Your task to perform on an android device: Open Google Chrome and click the shortcut for Amazon.com Image 0: 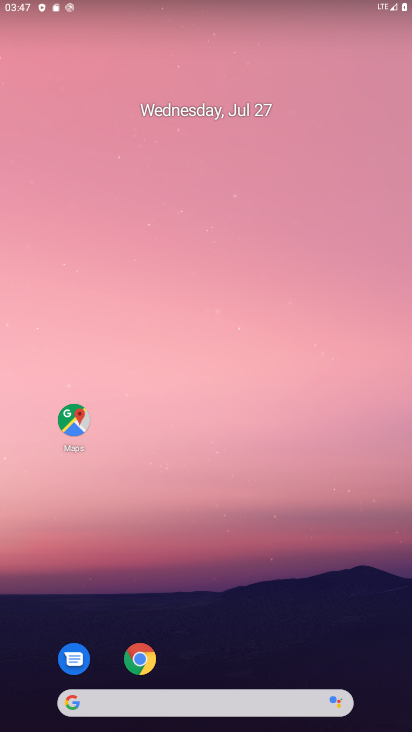
Step 0: click (145, 658)
Your task to perform on an android device: Open Google Chrome and click the shortcut for Amazon.com Image 1: 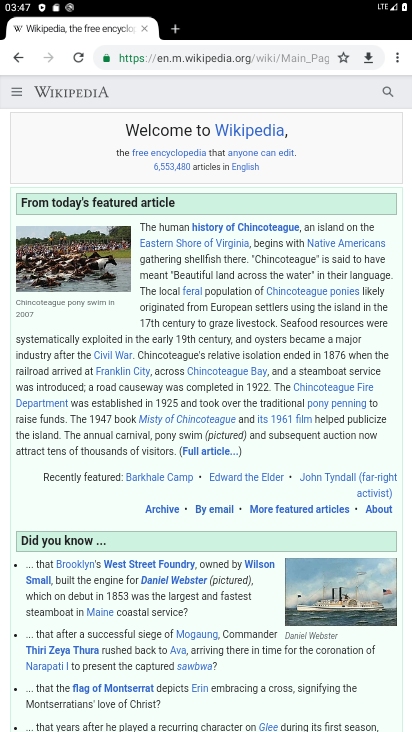
Step 1: click (176, 26)
Your task to perform on an android device: Open Google Chrome and click the shortcut for Amazon.com Image 2: 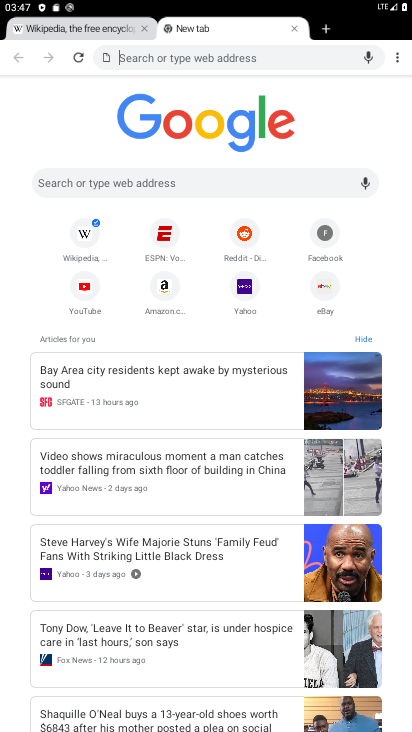
Step 2: click (159, 288)
Your task to perform on an android device: Open Google Chrome and click the shortcut for Amazon.com Image 3: 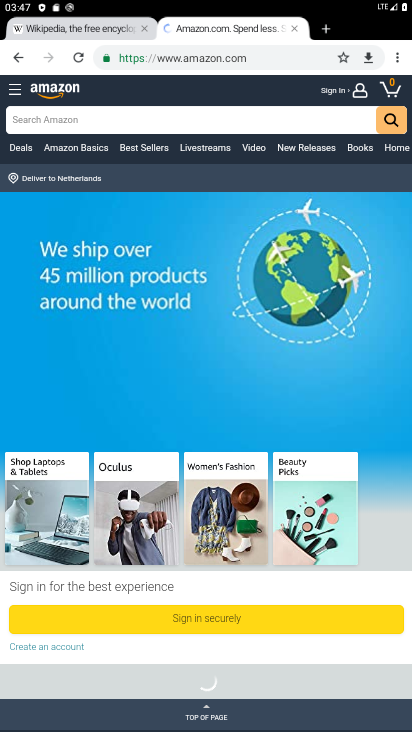
Step 3: task complete